Your task to perform on an android device: Show me the alarms in the clock app Image 0: 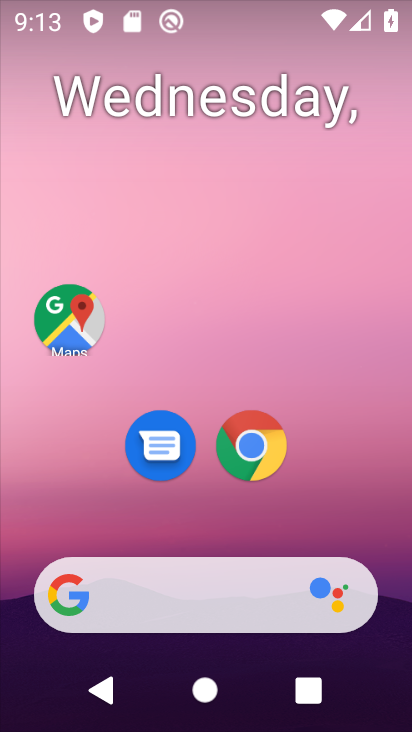
Step 0: drag from (355, 506) to (344, 10)
Your task to perform on an android device: Show me the alarms in the clock app Image 1: 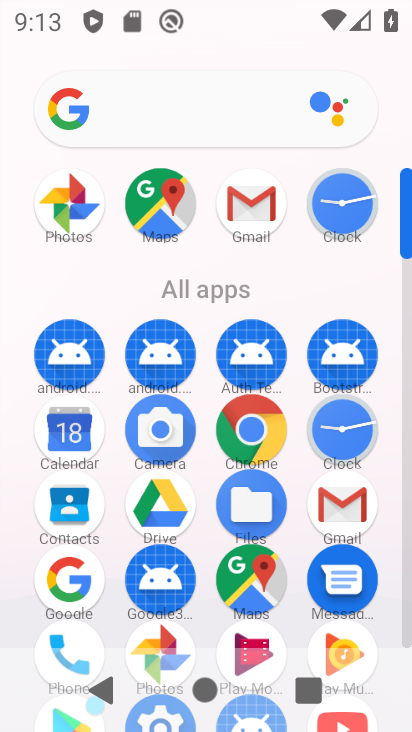
Step 1: click (359, 199)
Your task to perform on an android device: Show me the alarms in the clock app Image 2: 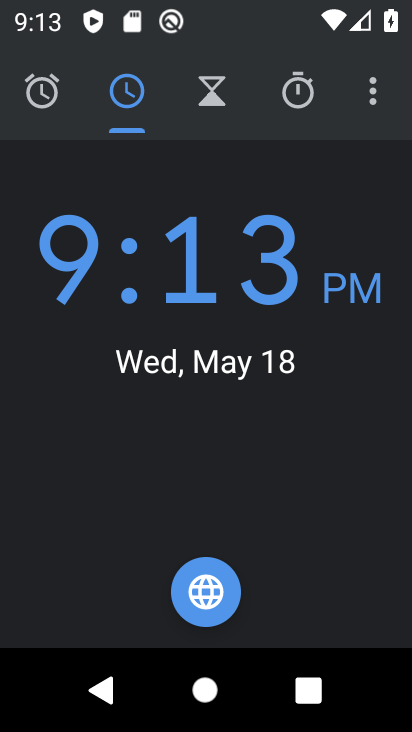
Step 2: click (371, 95)
Your task to perform on an android device: Show me the alarms in the clock app Image 3: 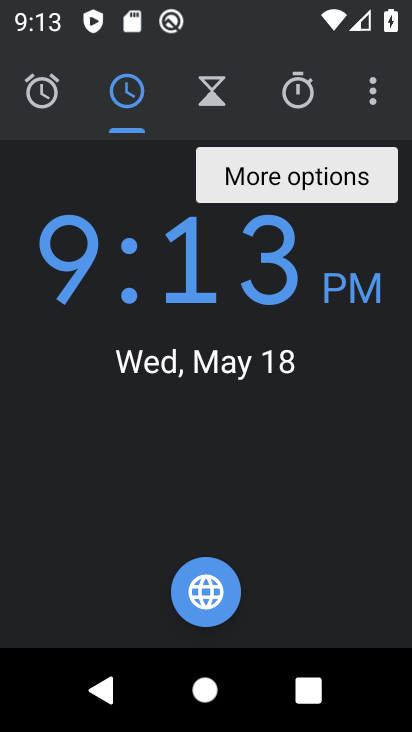
Step 3: click (378, 108)
Your task to perform on an android device: Show me the alarms in the clock app Image 4: 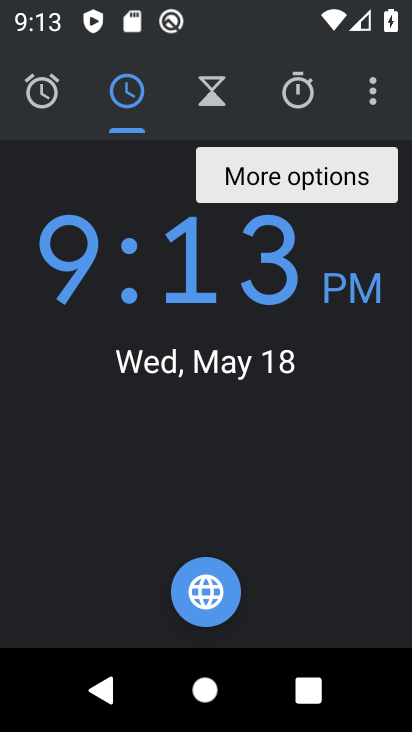
Step 4: click (373, 107)
Your task to perform on an android device: Show me the alarms in the clock app Image 5: 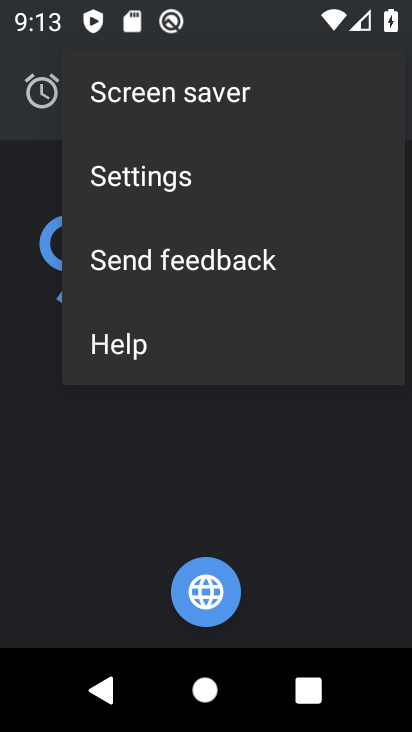
Step 5: click (171, 179)
Your task to perform on an android device: Show me the alarms in the clock app Image 6: 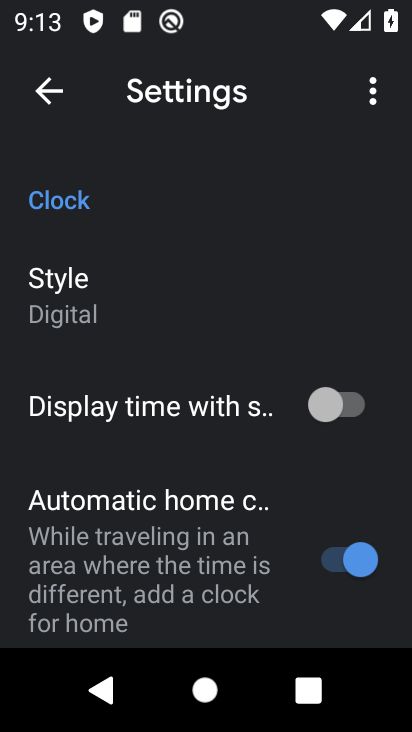
Step 6: click (92, 288)
Your task to perform on an android device: Show me the alarms in the clock app Image 7: 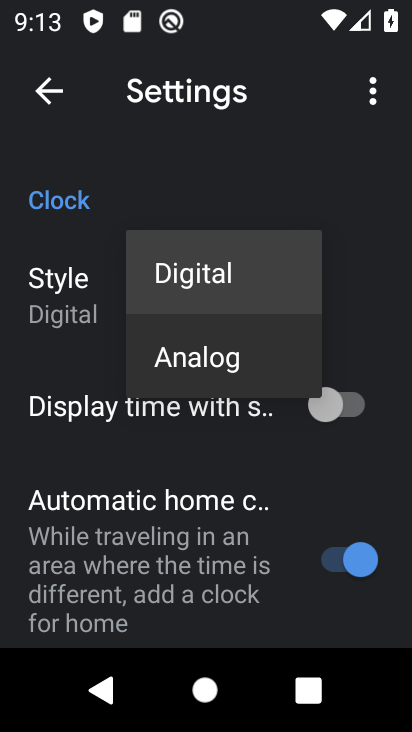
Step 7: click (162, 374)
Your task to perform on an android device: Show me the alarms in the clock app Image 8: 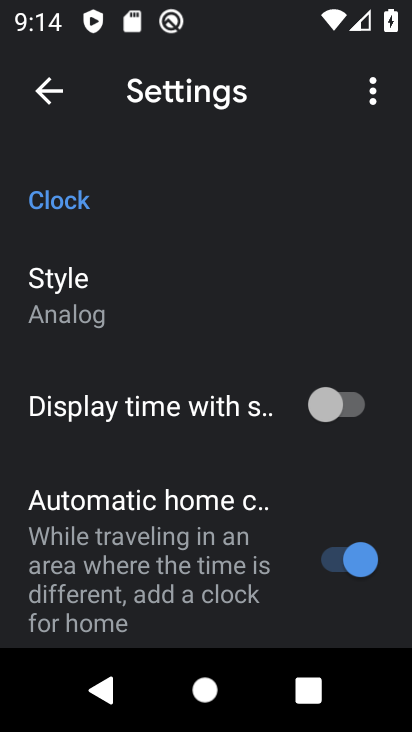
Step 8: task complete